Your task to perform on an android device: open chrome and create a bookmark for the current page Image 0: 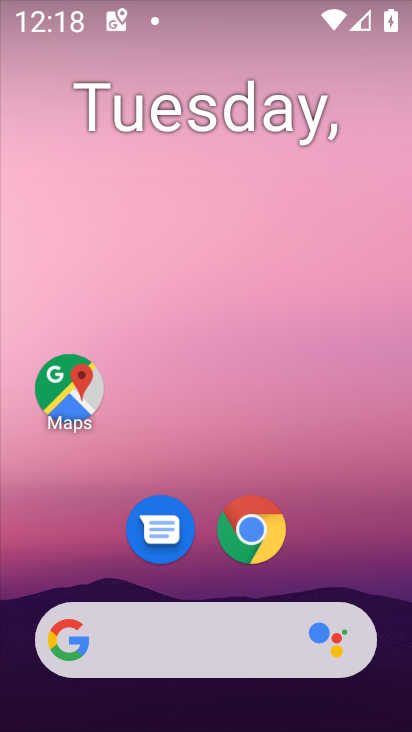
Step 0: click (259, 527)
Your task to perform on an android device: open chrome and create a bookmark for the current page Image 1: 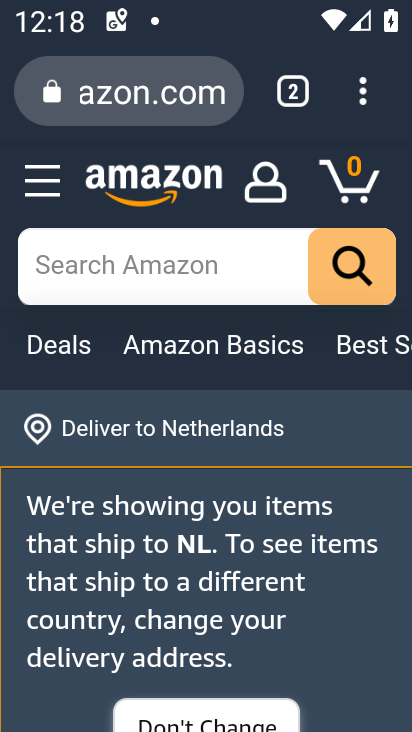
Step 1: task complete